Your task to perform on an android device: Go to ESPN.com Image 0: 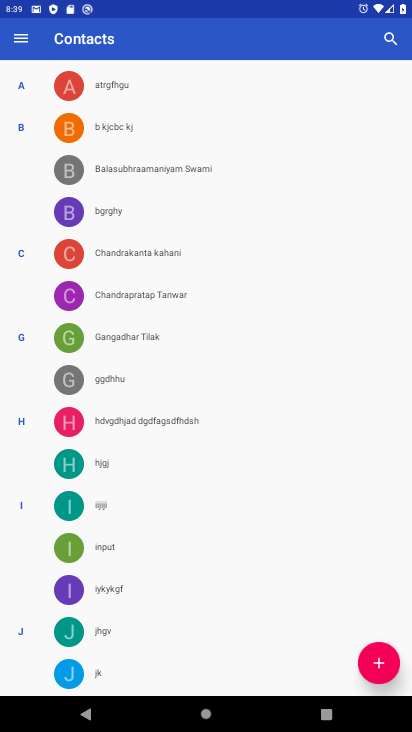
Step 0: press home button
Your task to perform on an android device: Go to ESPN.com Image 1: 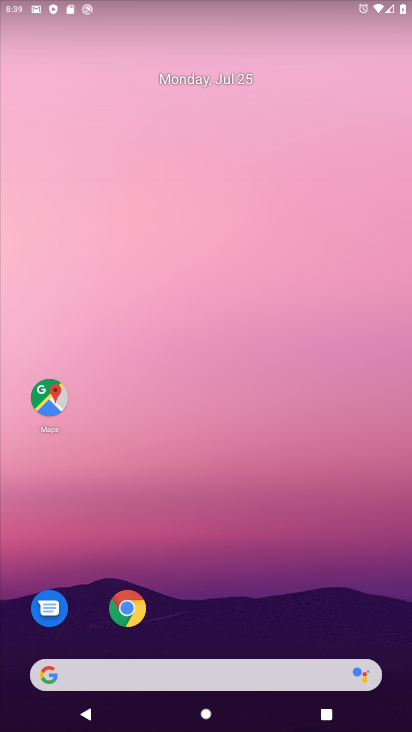
Step 1: click (164, 683)
Your task to perform on an android device: Go to ESPN.com Image 2: 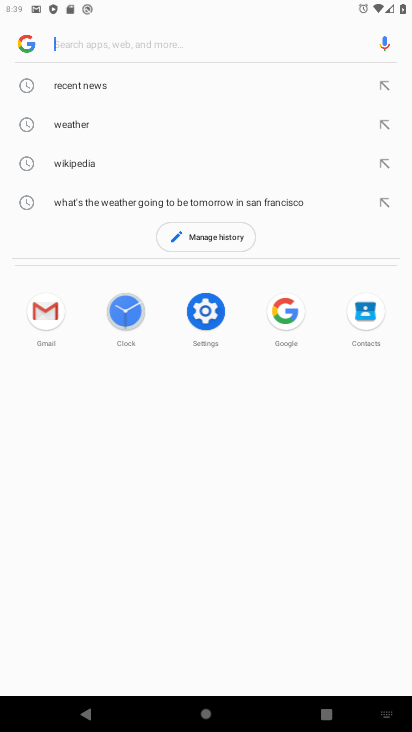
Step 2: type "espn.com"
Your task to perform on an android device: Go to ESPN.com Image 3: 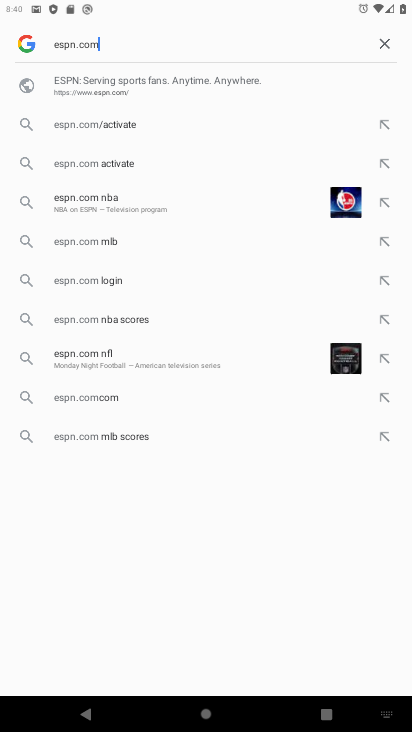
Step 3: click (149, 76)
Your task to perform on an android device: Go to ESPN.com Image 4: 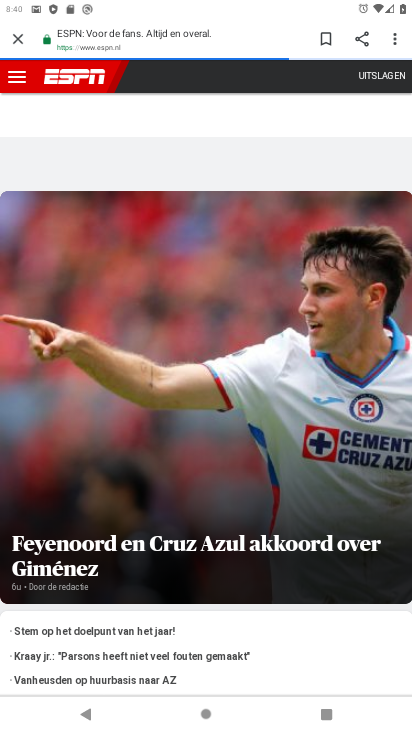
Step 4: task complete